Your task to perform on an android device: toggle notification dots Image 0: 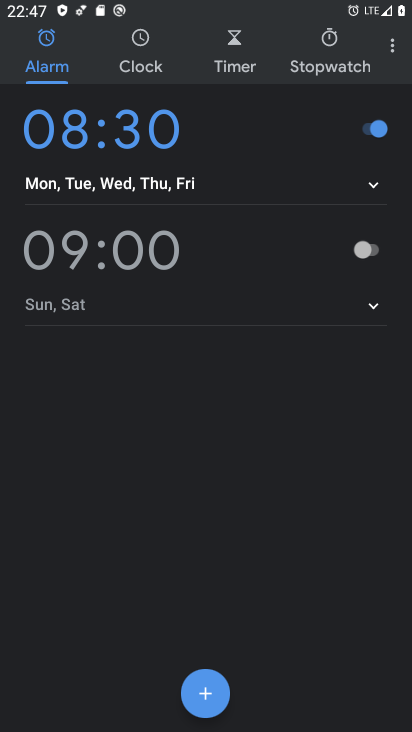
Step 0: press back button
Your task to perform on an android device: toggle notification dots Image 1: 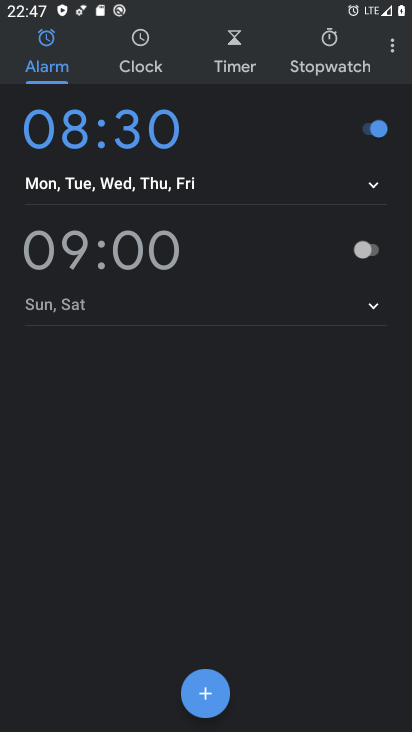
Step 1: press back button
Your task to perform on an android device: toggle notification dots Image 2: 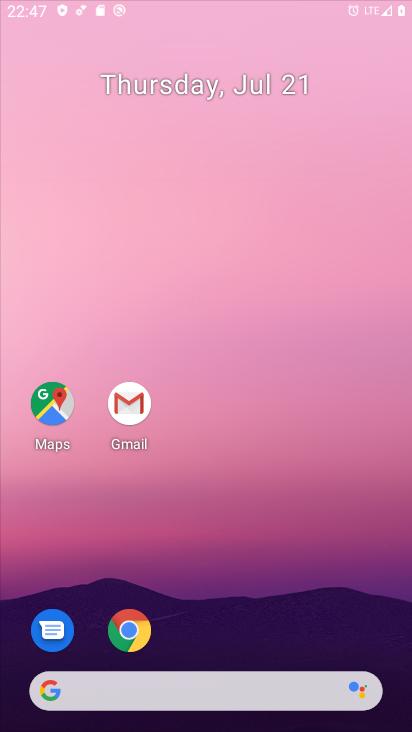
Step 2: press back button
Your task to perform on an android device: toggle notification dots Image 3: 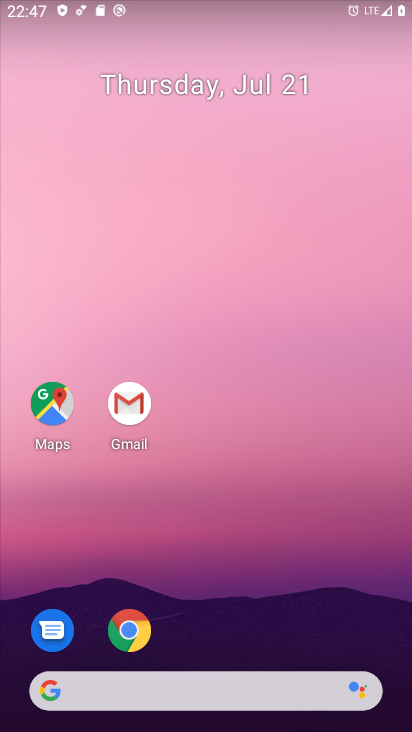
Step 3: drag from (291, 629) to (225, 93)
Your task to perform on an android device: toggle notification dots Image 4: 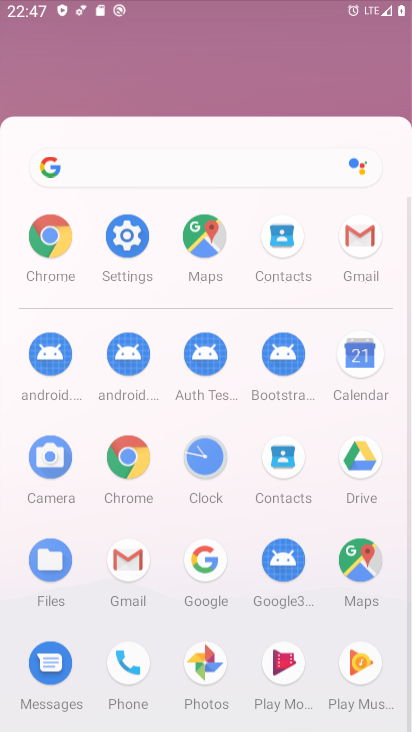
Step 4: drag from (203, 384) to (177, 47)
Your task to perform on an android device: toggle notification dots Image 5: 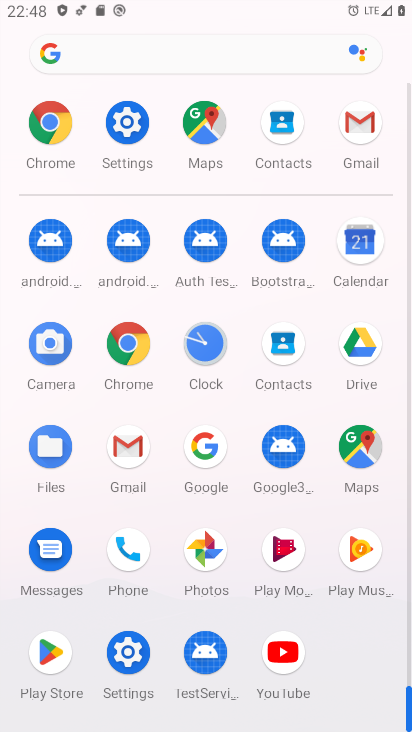
Step 5: click (134, 658)
Your task to perform on an android device: toggle notification dots Image 6: 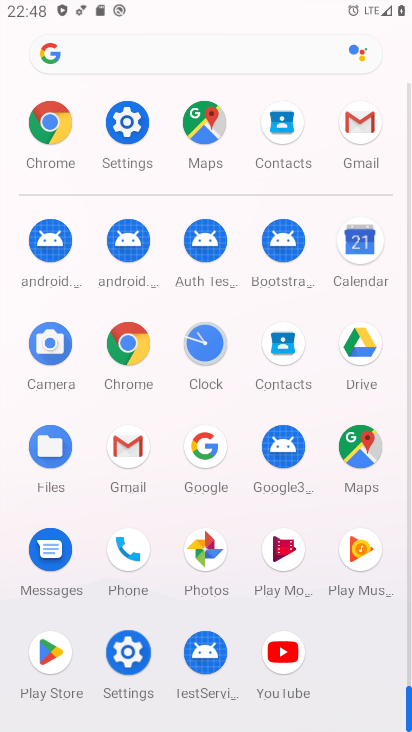
Step 6: click (126, 647)
Your task to perform on an android device: toggle notification dots Image 7: 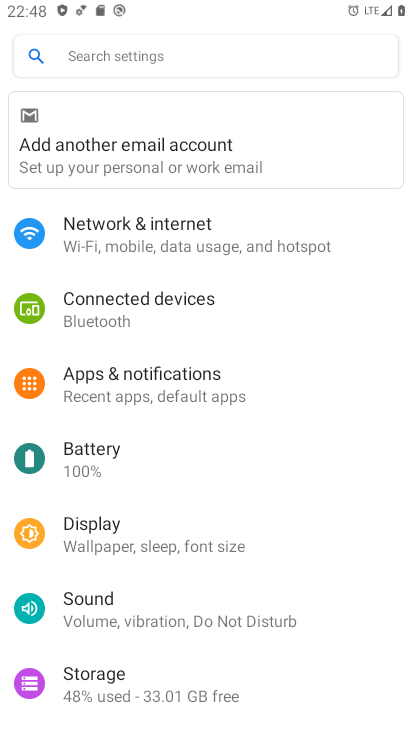
Step 7: click (119, 392)
Your task to perform on an android device: toggle notification dots Image 8: 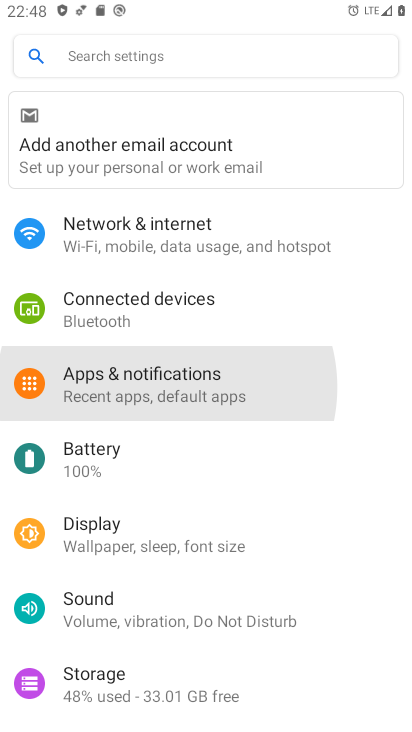
Step 8: click (124, 386)
Your task to perform on an android device: toggle notification dots Image 9: 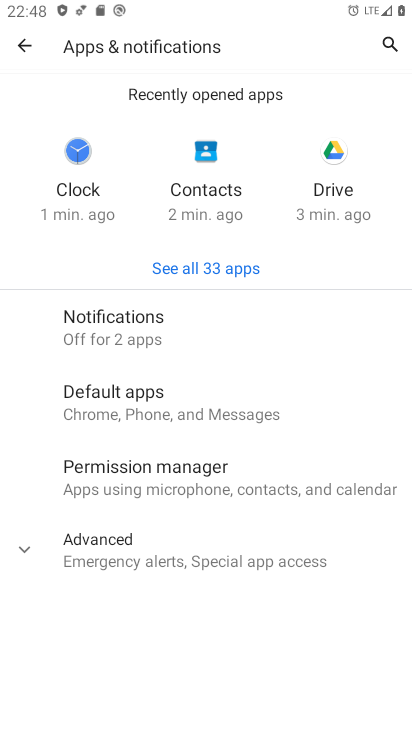
Step 9: click (129, 328)
Your task to perform on an android device: toggle notification dots Image 10: 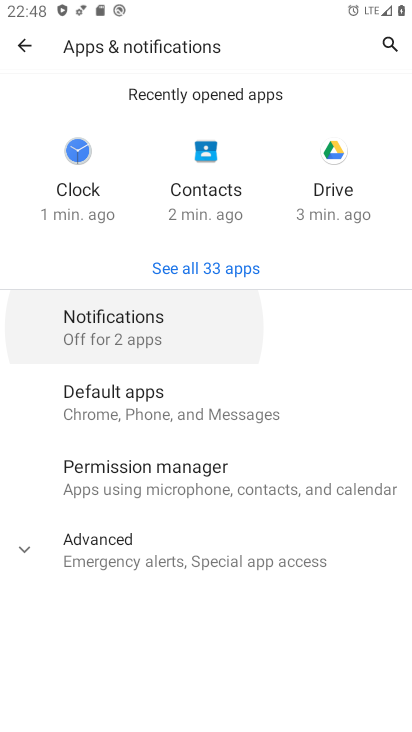
Step 10: click (129, 328)
Your task to perform on an android device: toggle notification dots Image 11: 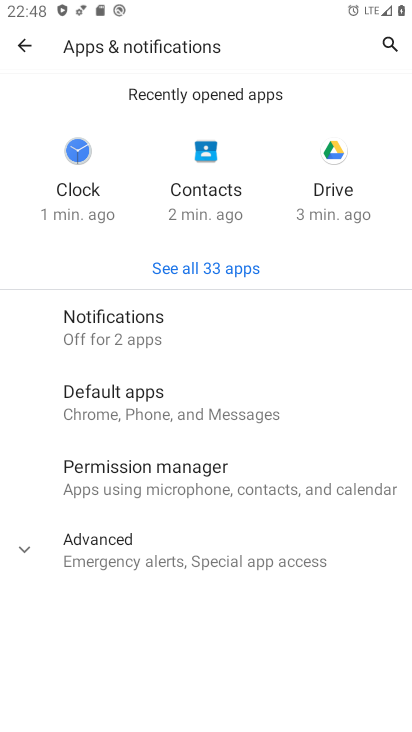
Step 11: click (128, 328)
Your task to perform on an android device: toggle notification dots Image 12: 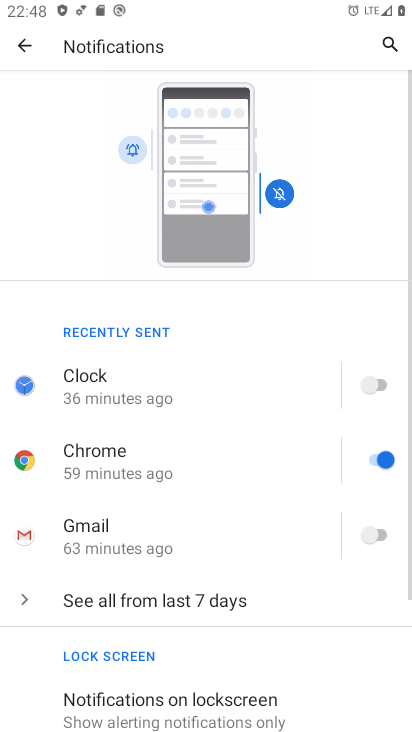
Step 12: drag from (277, 620) to (221, 312)
Your task to perform on an android device: toggle notification dots Image 13: 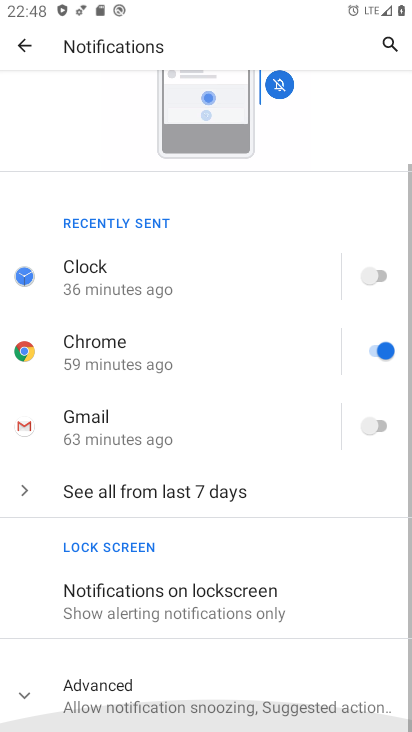
Step 13: drag from (219, 469) to (196, 325)
Your task to perform on an android device: toggle notification dots Image 14: 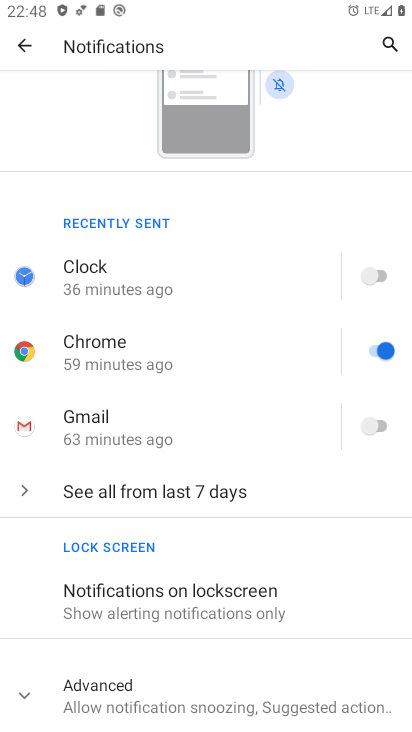
Step 14: click (167, 603)
Your task to perform on an android device: toggle notification dots Image 15: 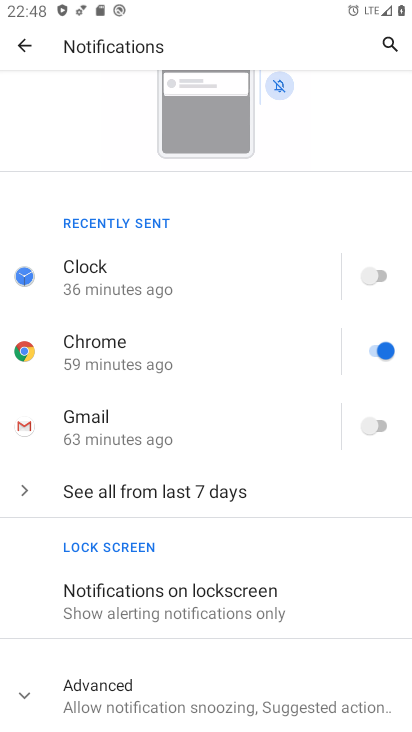
Step 15: click (168, 599)
Your task to perform on an android device: toggle notification dots Image 16: 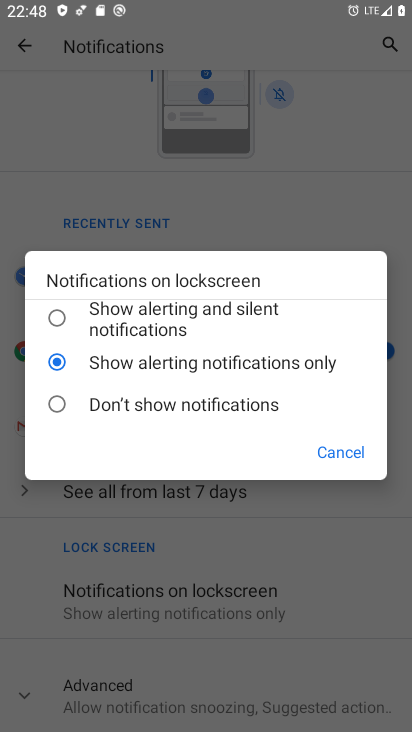
Step 16: click (337, 453)
Your task to perform on an android device: toggle notification dots Image 17: 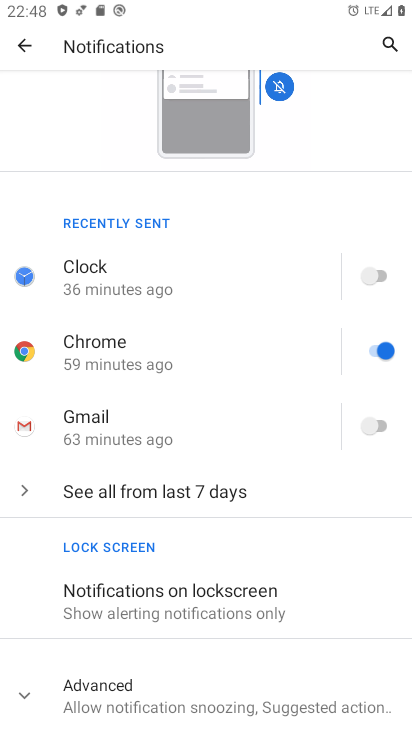
Step 17: click (128, 691)
Your task to perform on an android device: toggle notification dots Image 18: 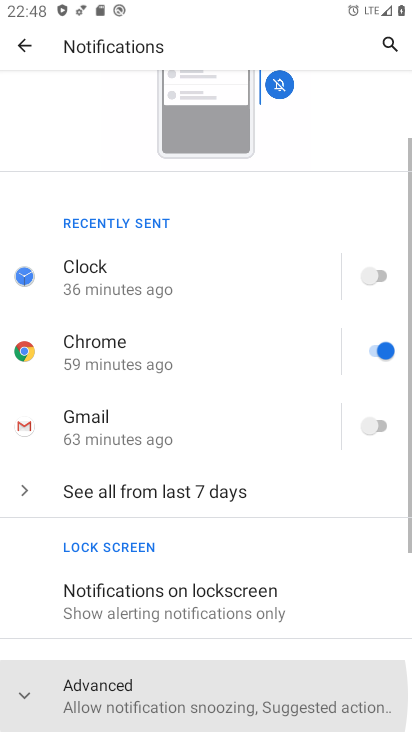
Step 18: click (127, 692)
Your task to perform on an android device: toggle notification dots Image 19: 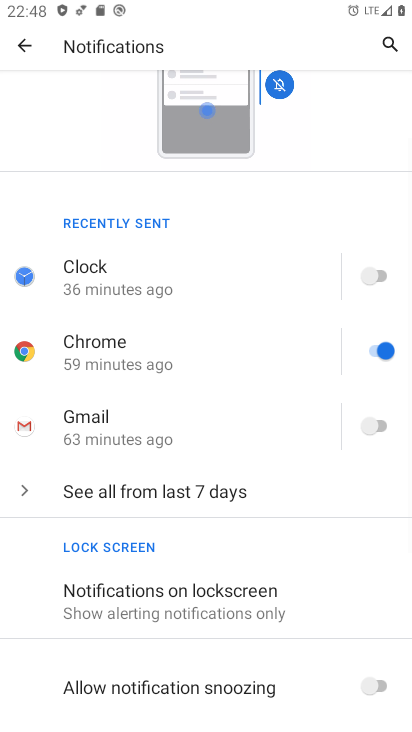
Step 19: drag from (309, 515) to (309, 374)
Your task to perform on an android device: toggle notification dots Image 20: 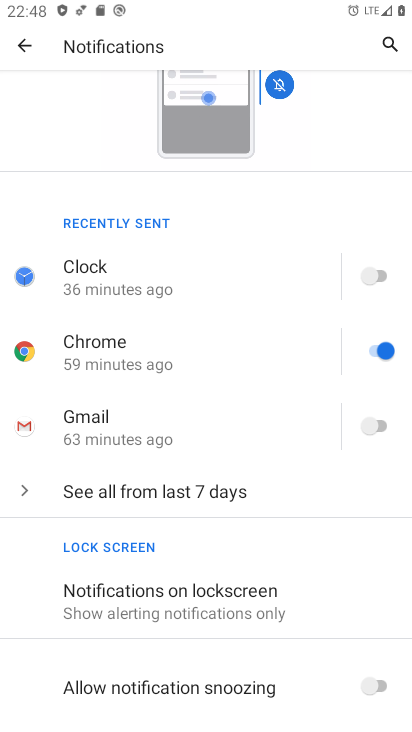
Step 20: drag from (271, 436) to (294, 264)
Your task to perform on an android device: toggle notification dots Image 21: 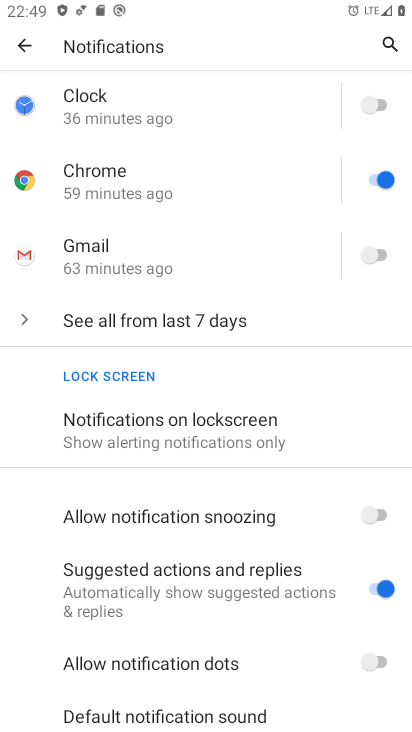
Step 21: click (371, 660)
Your task to perform on an android device: toggle notification dots Image 22: 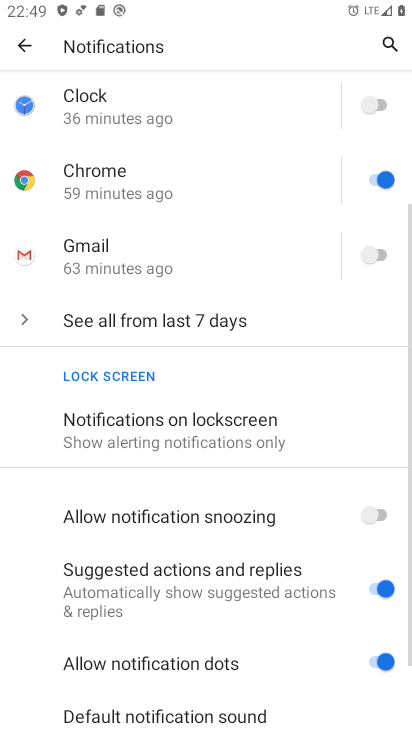
Step 22: task complete